Your task to perform on an android device: Open Yahoo.com Image 0: 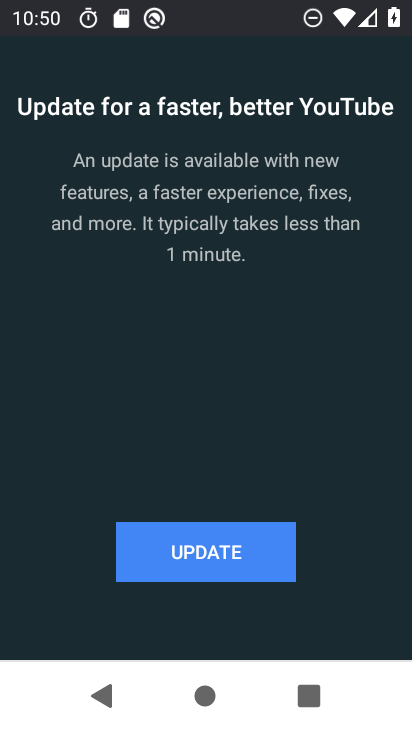
Step 0: press home button
Your task to perform on an android device: Open Yahoo.com Image 1: 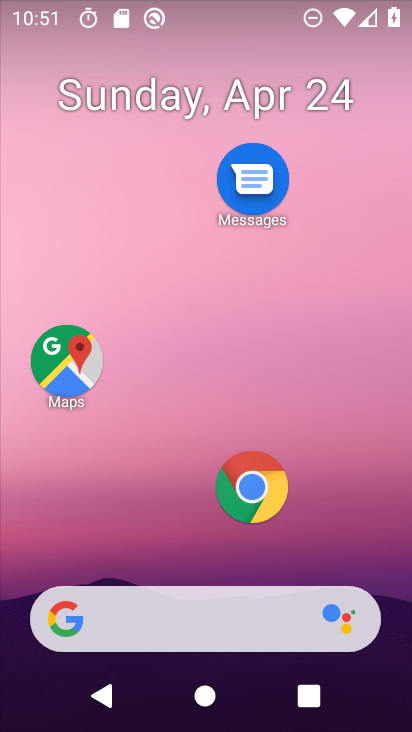
Step 1: click (248, 492)
Your task to perform on an android device: Open Yahoo.com Image 2: 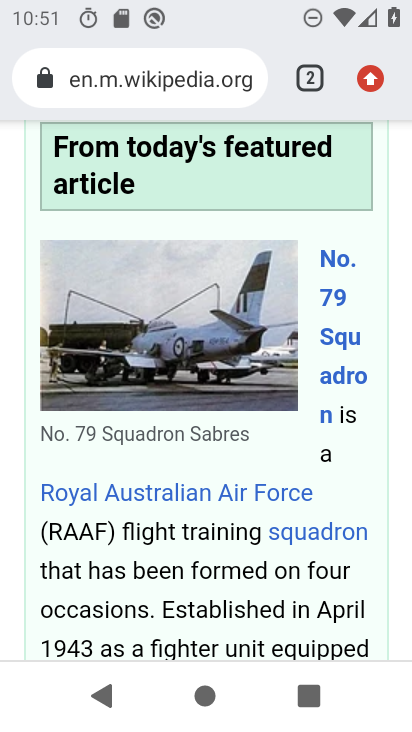
Step 2: click (169, 84)
Your task to perform on an android device: Open Yahoo.com Image 3: 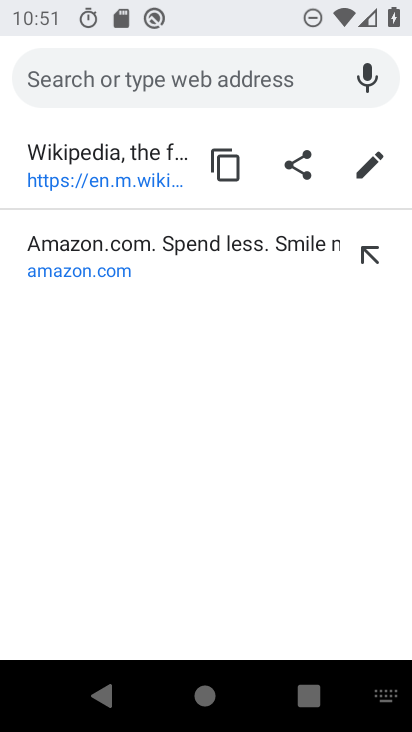
Step 3: type "yahoo.com"
Your task to perform on an android device: Open Yahoo.com Image 4: 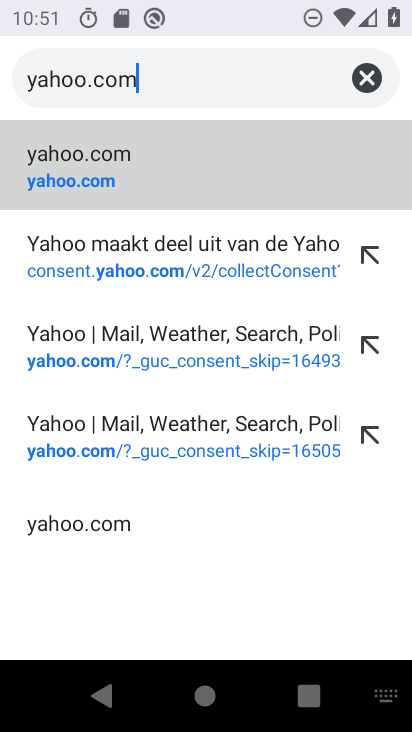
Step 4: click (67, 175)
Your task to perform on an android device: Open Yahoo.com Image 5: 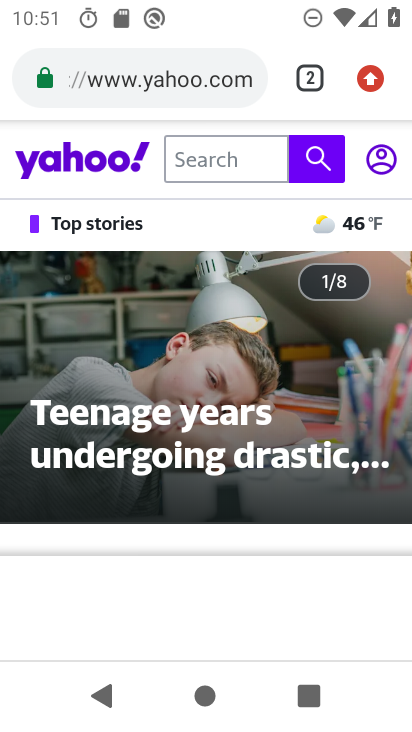
Step 5: task complete